Your task to perform on an android device: Go to Google Image 0: 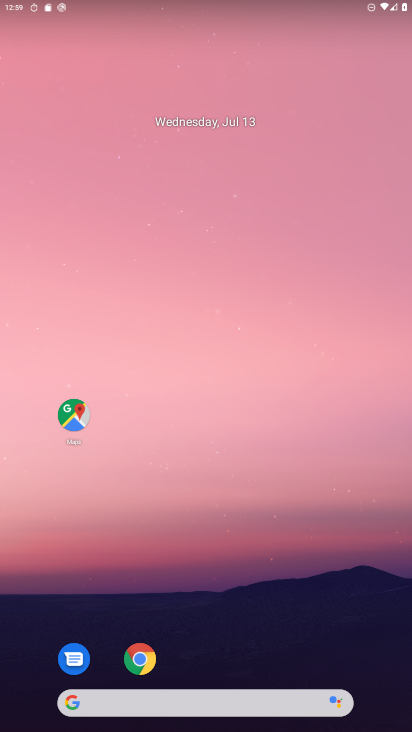
Step 0: drag from (172, 686) to (177, 50)
Your task to perform on an android device: Go to Google Image 1: 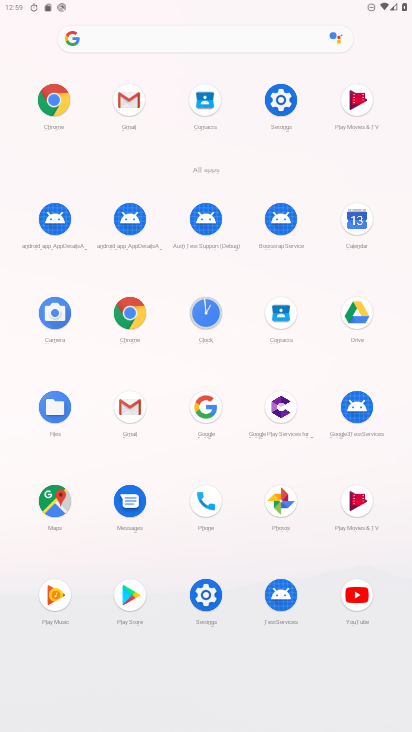
Step 1: click (209, 410)
Your task to perform on an android device: Go to Google Image 2: 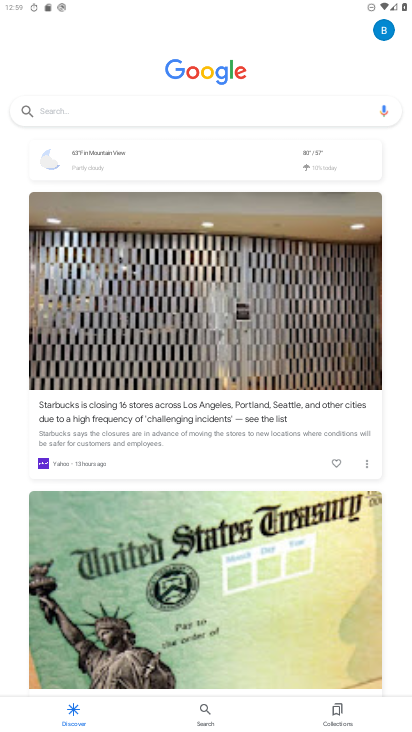
Step 2: task complete